Your task to perform on an android device: Open internet settings Image 0: 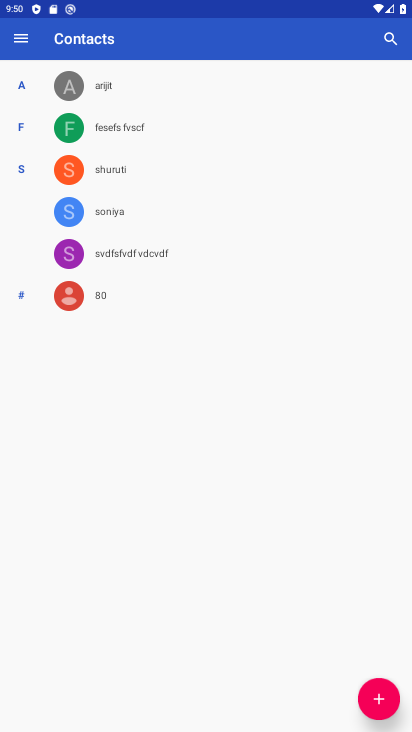
Step 0: press home button
Your task to perform on an android device: Open internet settings Image 1: 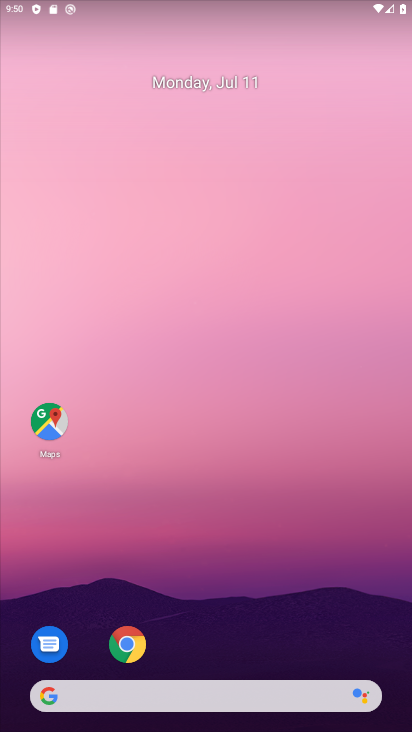
Step 1: drag from (294, 568) to (250, 77)
Your task to perform on an android device: Open internet settings Image 2: 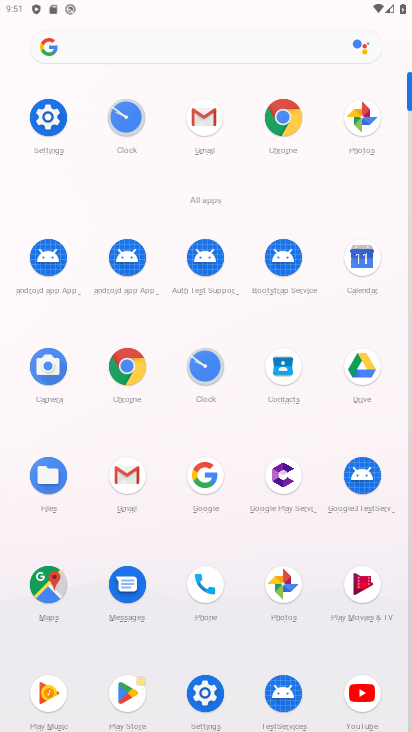
Step 2: click (52, 125)
Your task to perform on an android device: Open internet settings Image 3: 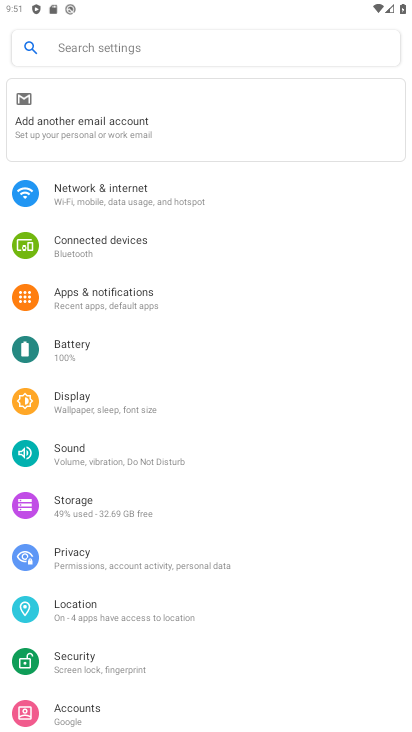
Step 3: click (98, 197)
Your task to perform on an android device: Open internet settings Image 4: 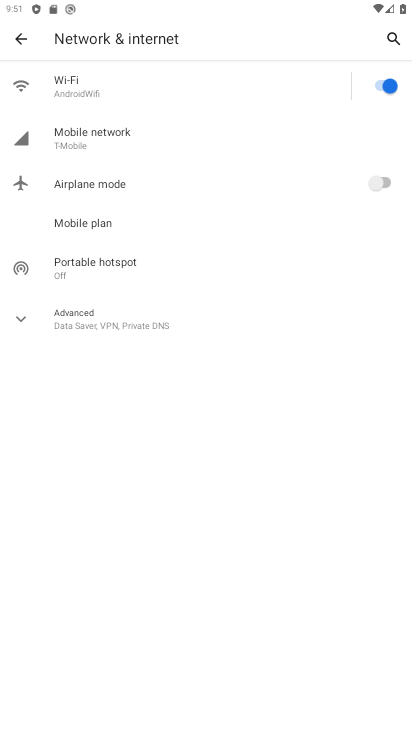
Step 4: click (86, 131)
Your task to perform on an android device: Open internet settings Image 5: 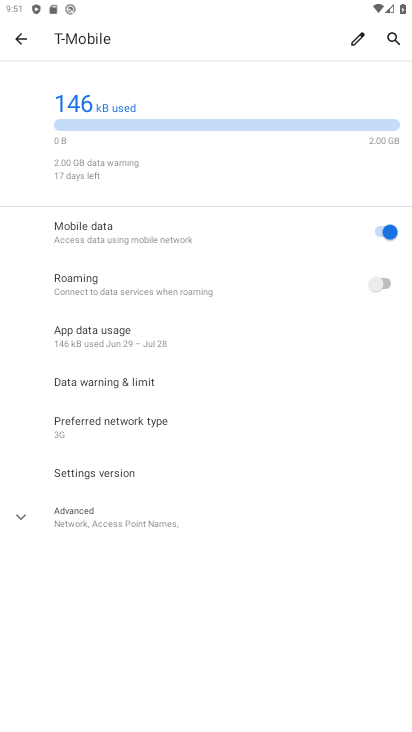
Step 5: task complete